Your task to perform on an android device: Search for pizza restaurants on Maps Image 0: 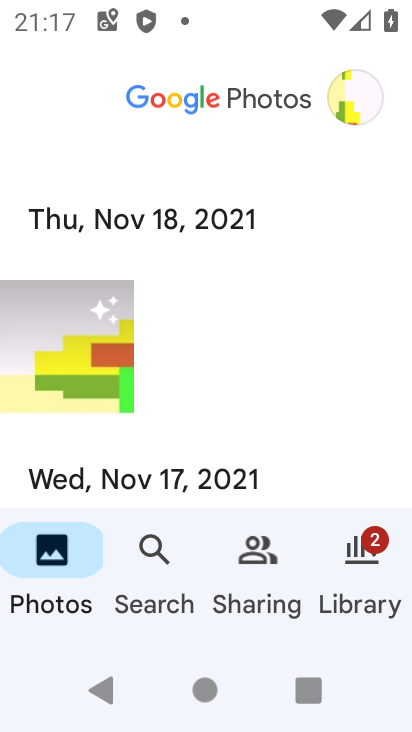
Step 0: press home button
Your task to perform on an android device: Search for pizza restaurants on Maps Image 1: 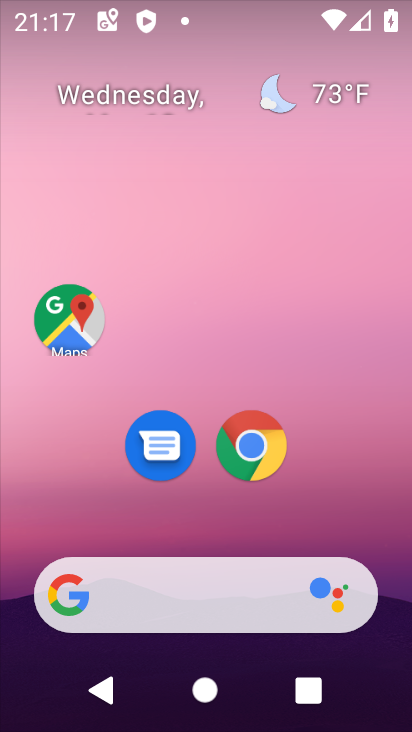
Step 1: click (67, 310)
Your task to perform on an android device: Search for pizza restaurants on Maps Image 2: 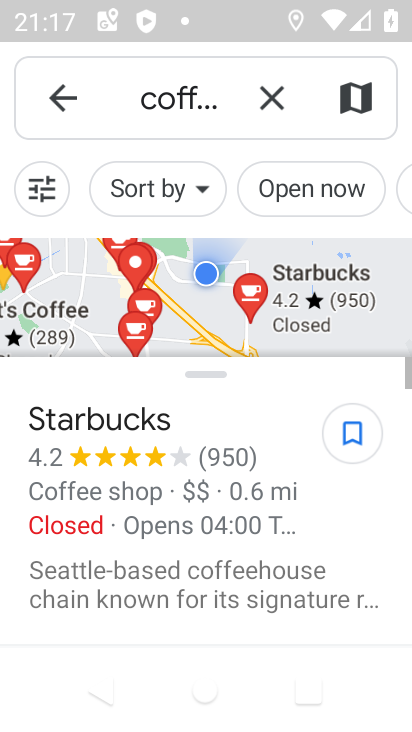
Step 2: click (270, 98)
Your task to perform on an android device: Search for pizza restaurants on Maps Image 3: 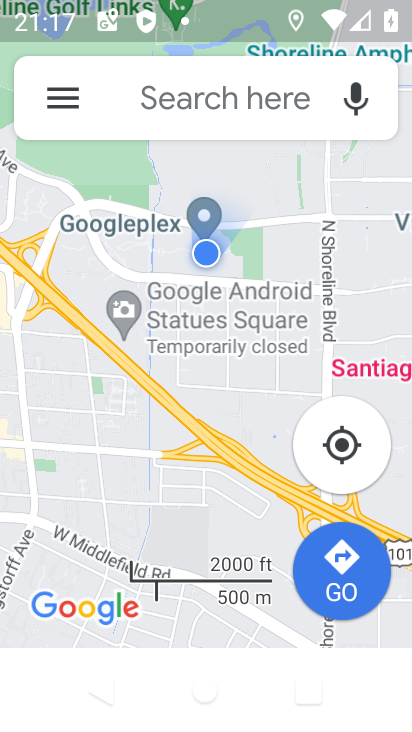
Step 3: click (168, 103)
Your task to perform on an android device: Search for pizza restaurants on Maps Image 4: 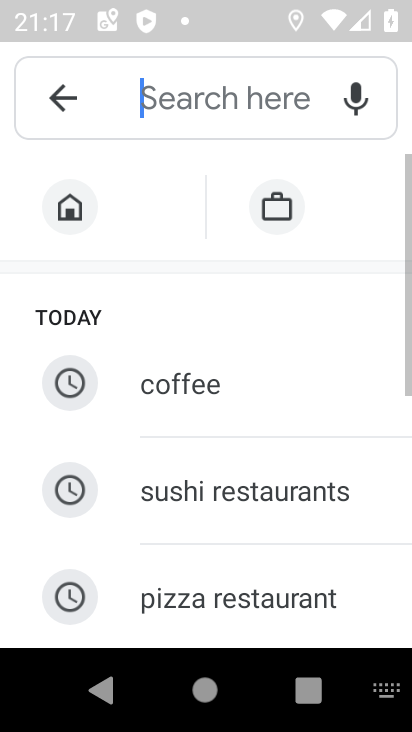
Step 4: click (194, 582)
Your task to perform on an android device: Search for pizza restaurants on Maps Image 5: 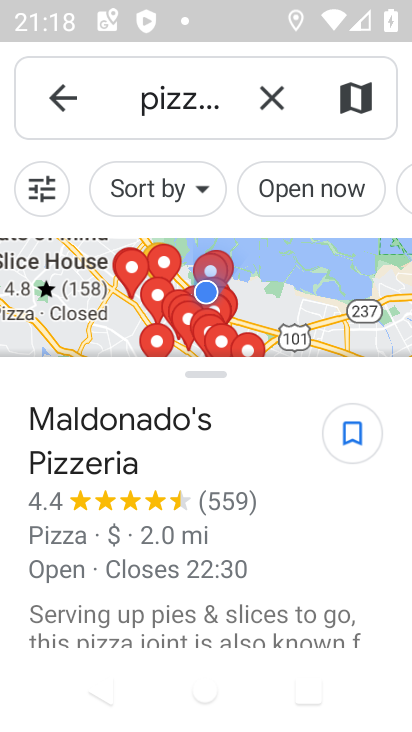
Step 5: task complete